Your task to perform on an android device: open device folders in google photos Image 0: 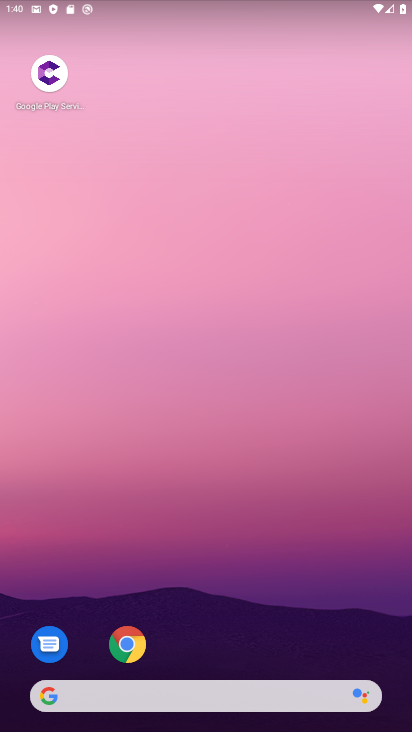
Step 0: drag from (277, 649) to (224, 103)
Your task to perform on an android device: open device folders in google photos Image 1: 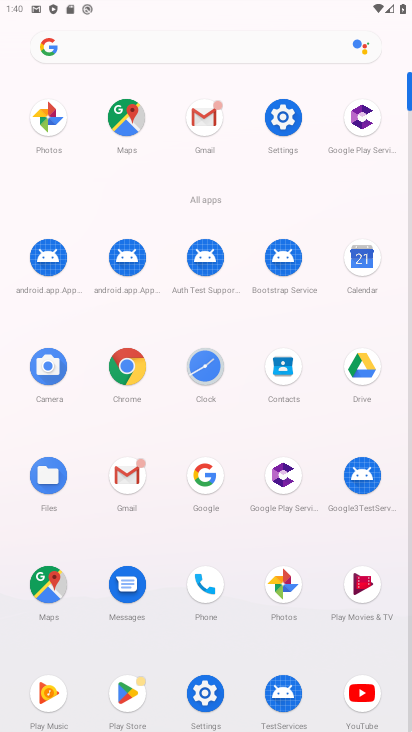
Step 1: click (46, 126)
Your task to perform on an android device: open device folders in google photos Image 2: 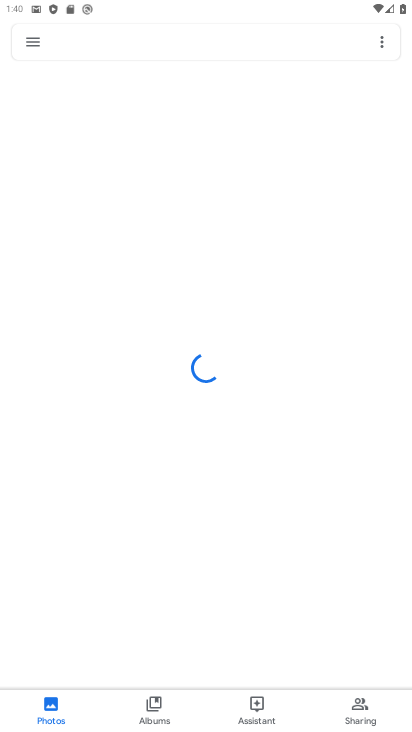
Step 2: click (32, 41)
Your task to perform on an android device: open device folders in google photos Image 3: 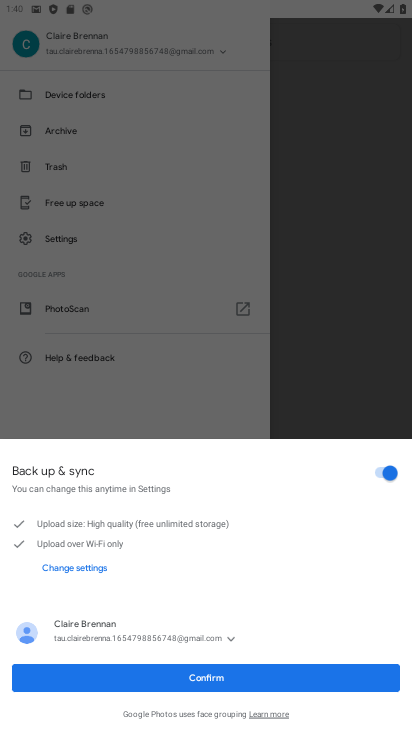
Step 3: click (187, 684)
Your task to perform on an android device: open device folders in google photos Image 4: 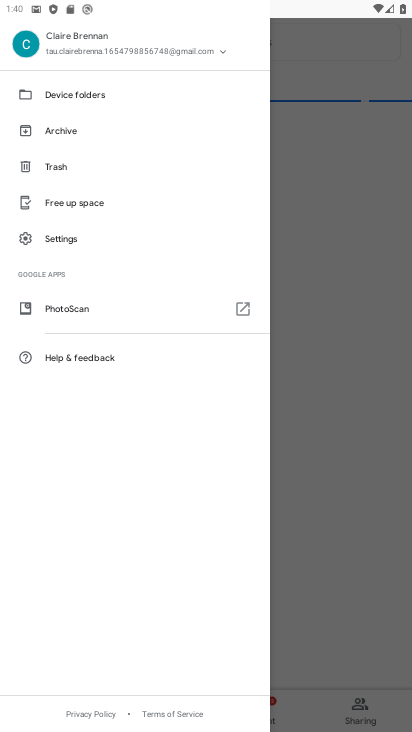
Step 4: click (80, 93)
Your task to perform on an android device: open device folders in google photos Image 5: 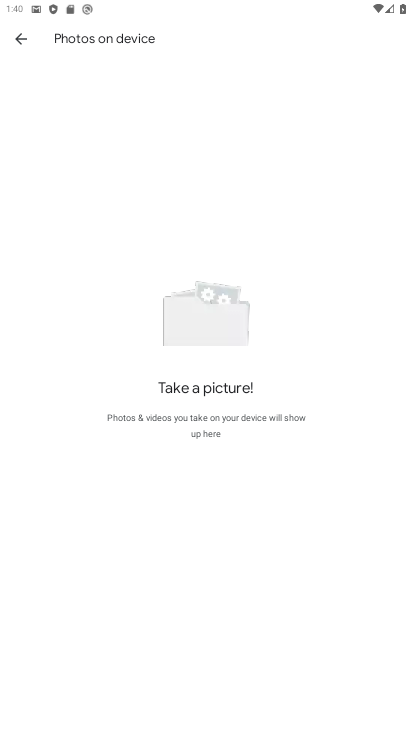
Step 5: task complete